Your task to perform on an android device: change the clock display to digital Image 0: 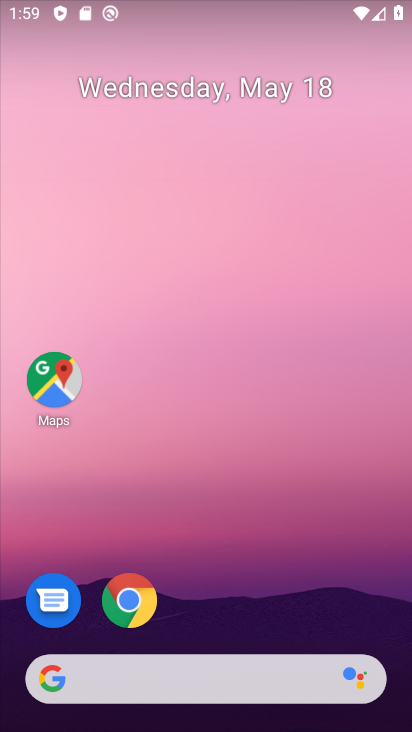
Step 0: drag from (137, 677) to (276, 180)
Your task to perform on an android device: change the clock display to digital Image 1: 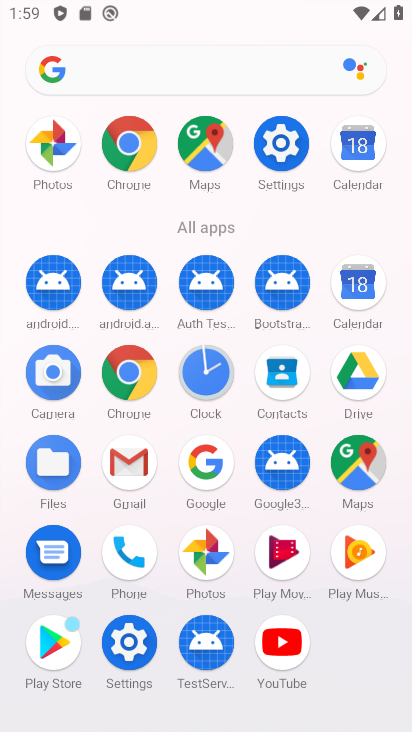
Step 1: click (206, 382)
Your task to perform on an android device: change the clock display to digital Image 2: 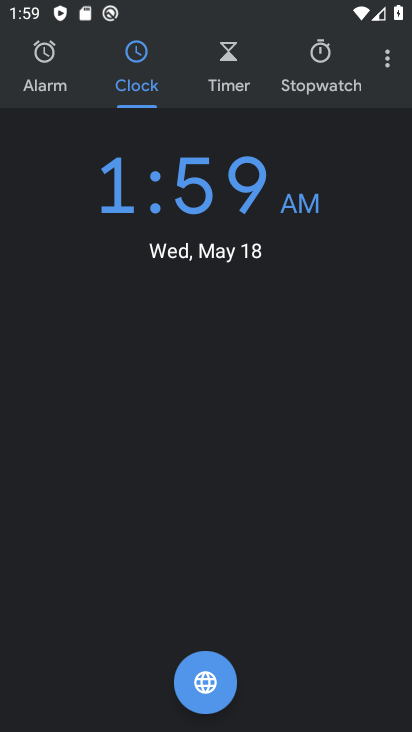
Step 2: click (388, 68)
Your task to perform on an android device: change the clock display to digital Image 3: 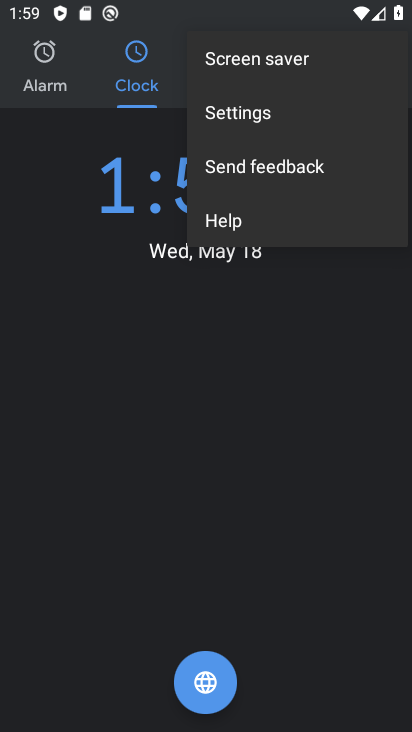
Step 3: click (250, 114)
Your task to perform on an android device: change the clock display to digital Image 4: 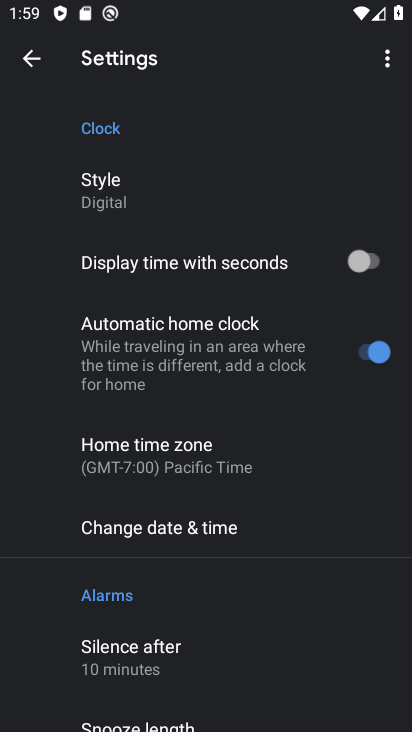
Step 4: task complete